Your task to perform on an android device: delete browsing data in the chrome app Image 0: 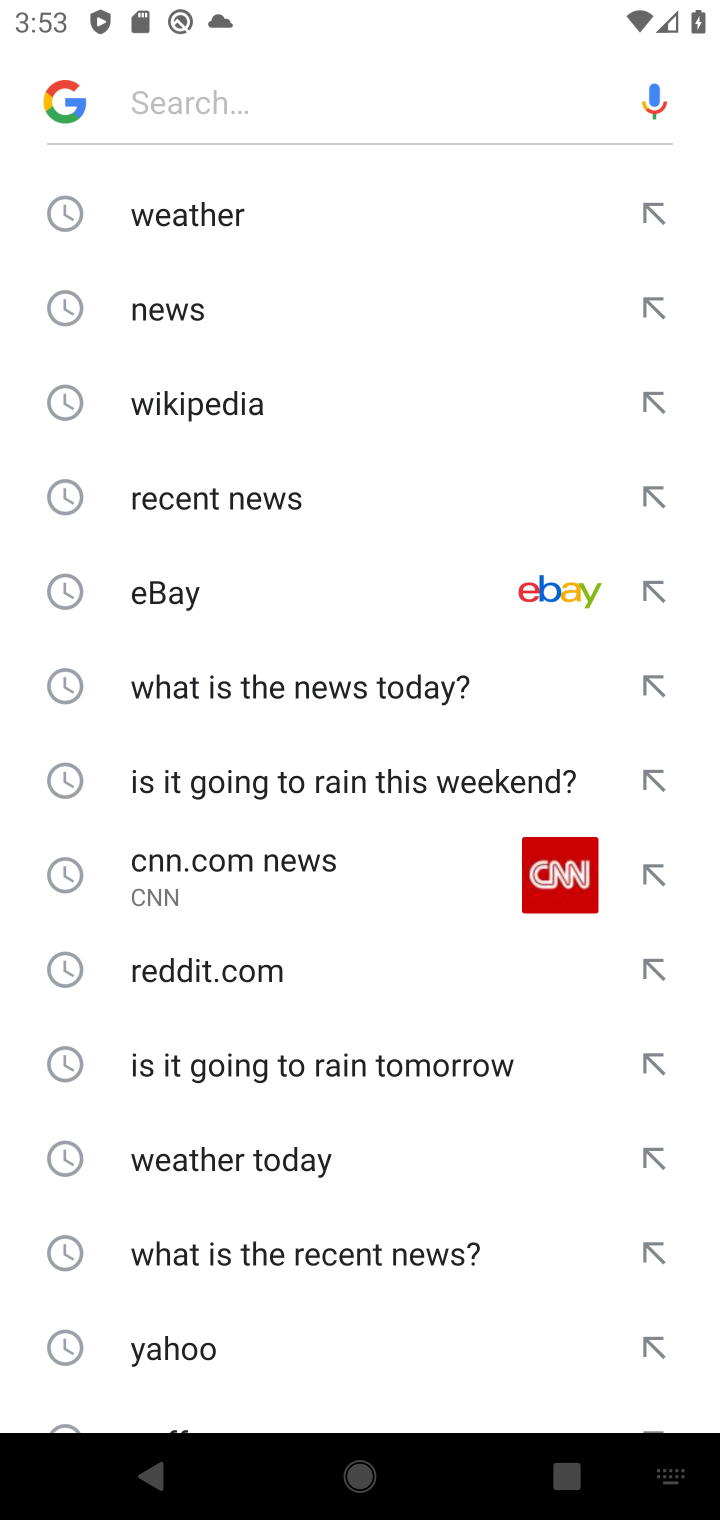
Step 0: press home button
Your task to perform on an android device: delete browsing data in the chrome app Image 1: 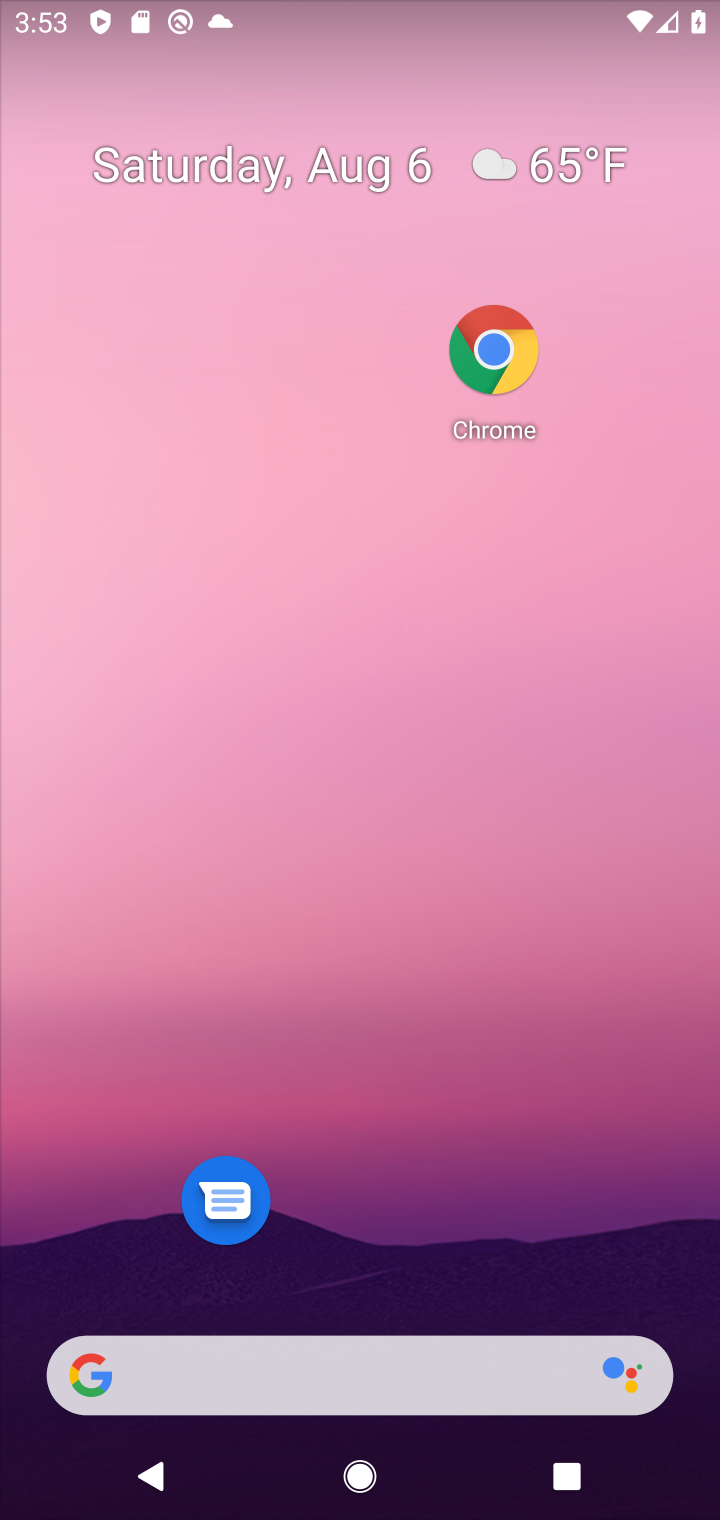
Step 1: click (482, 358)
Your task to perform on an android device: delete browsing data in the chrome app Image 2: 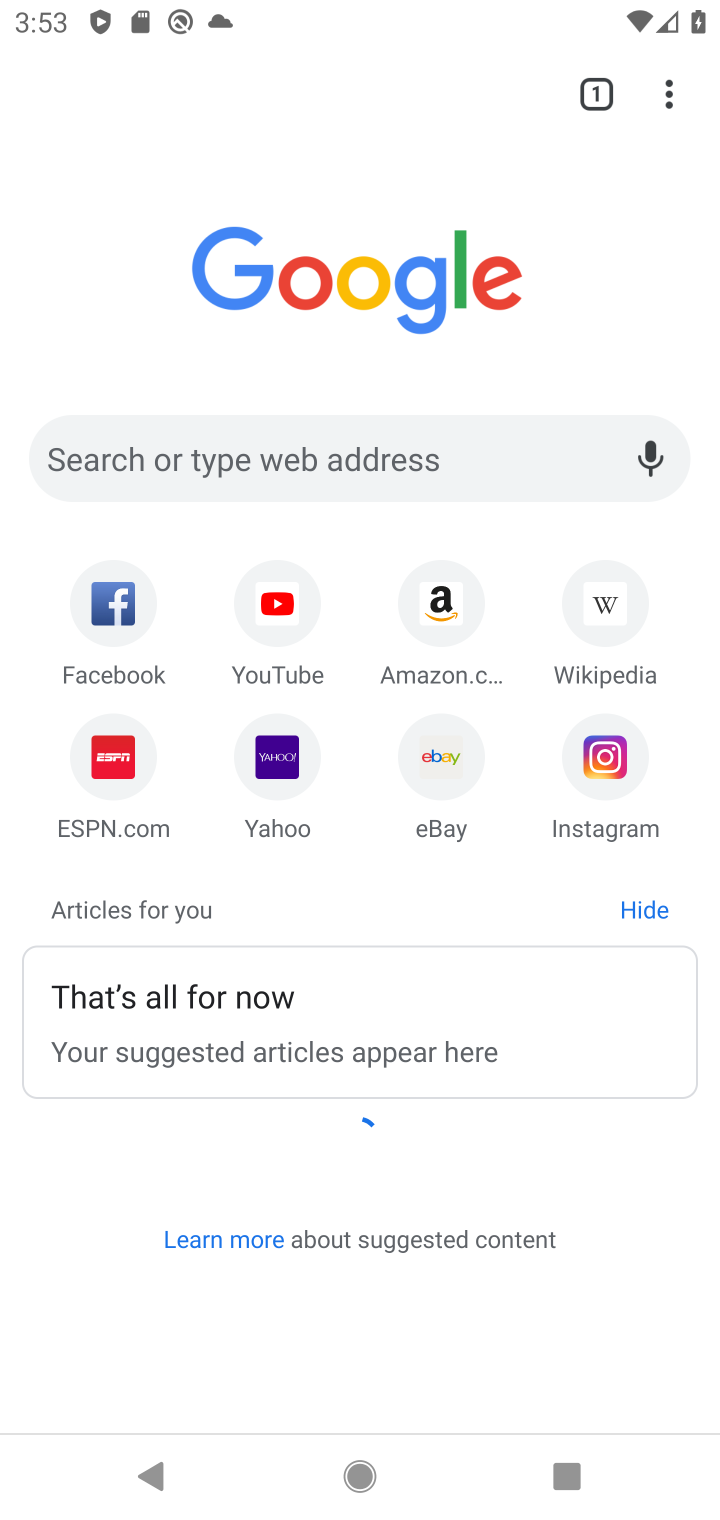
Step 2: click (667, 101)
Your task to perform on an android device: delete browsing data in the chrome app Image 3: 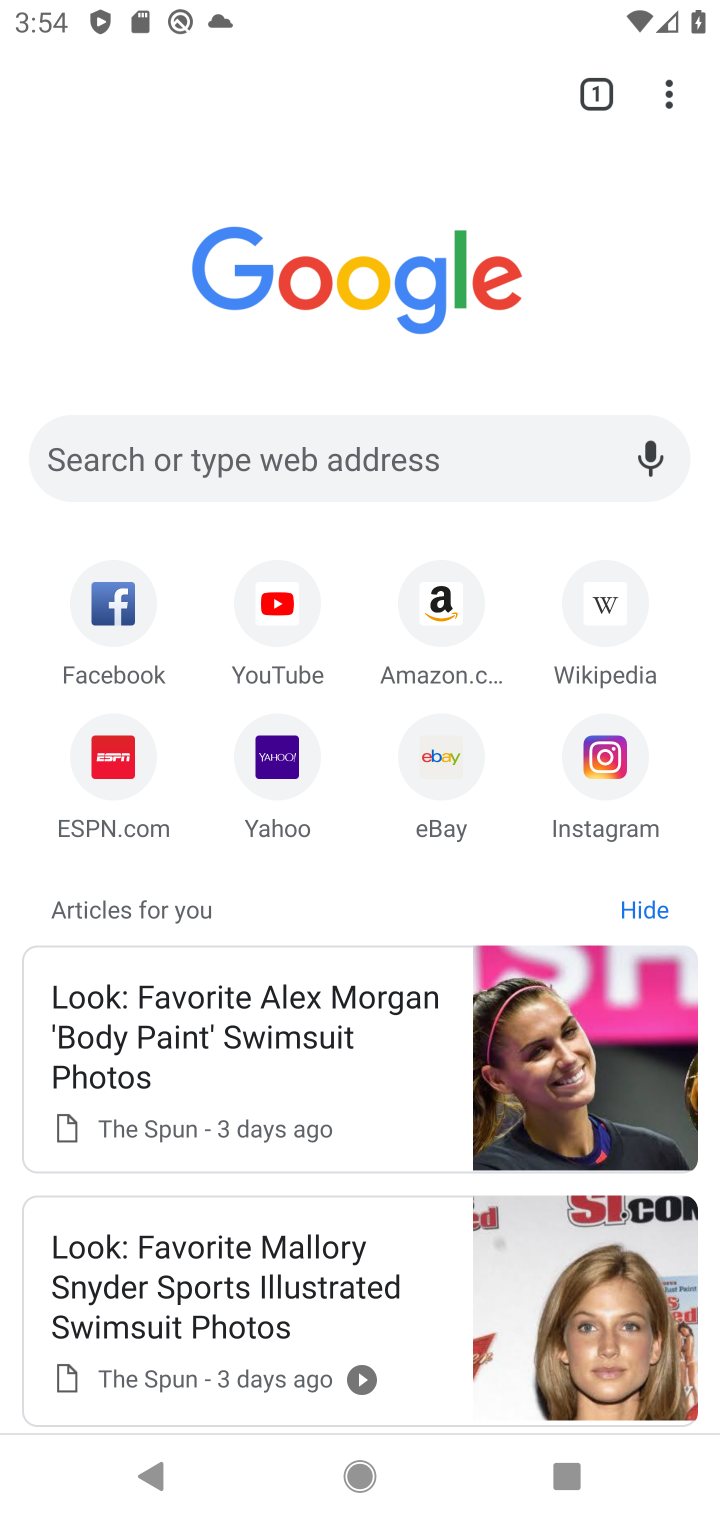
Step 3: click (663, 83)
Your task to perform on an android device: delete browsing data in the chrome app Image 4: 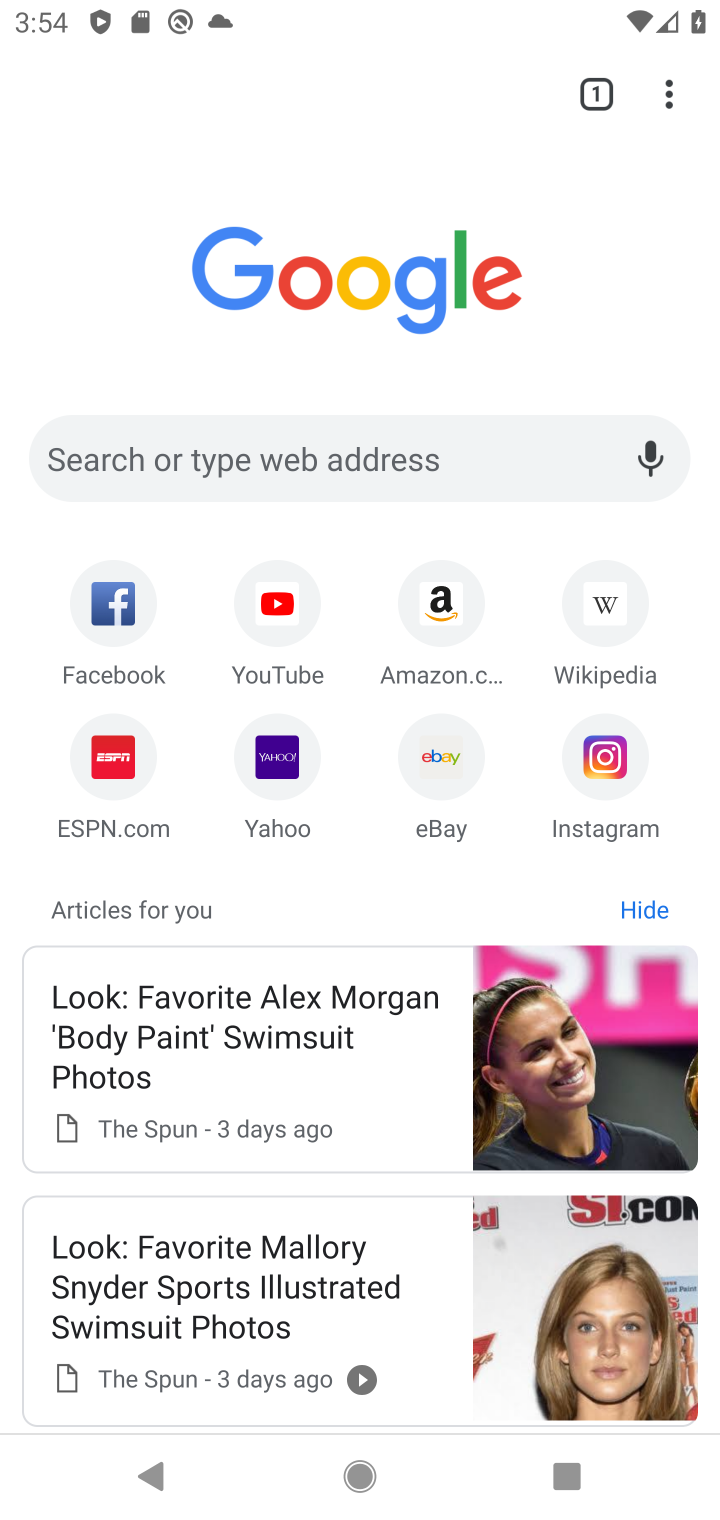
Step 4: click (667, 96)
Your task to perform on an android device: delete browsing data in the chrome app Image 5: 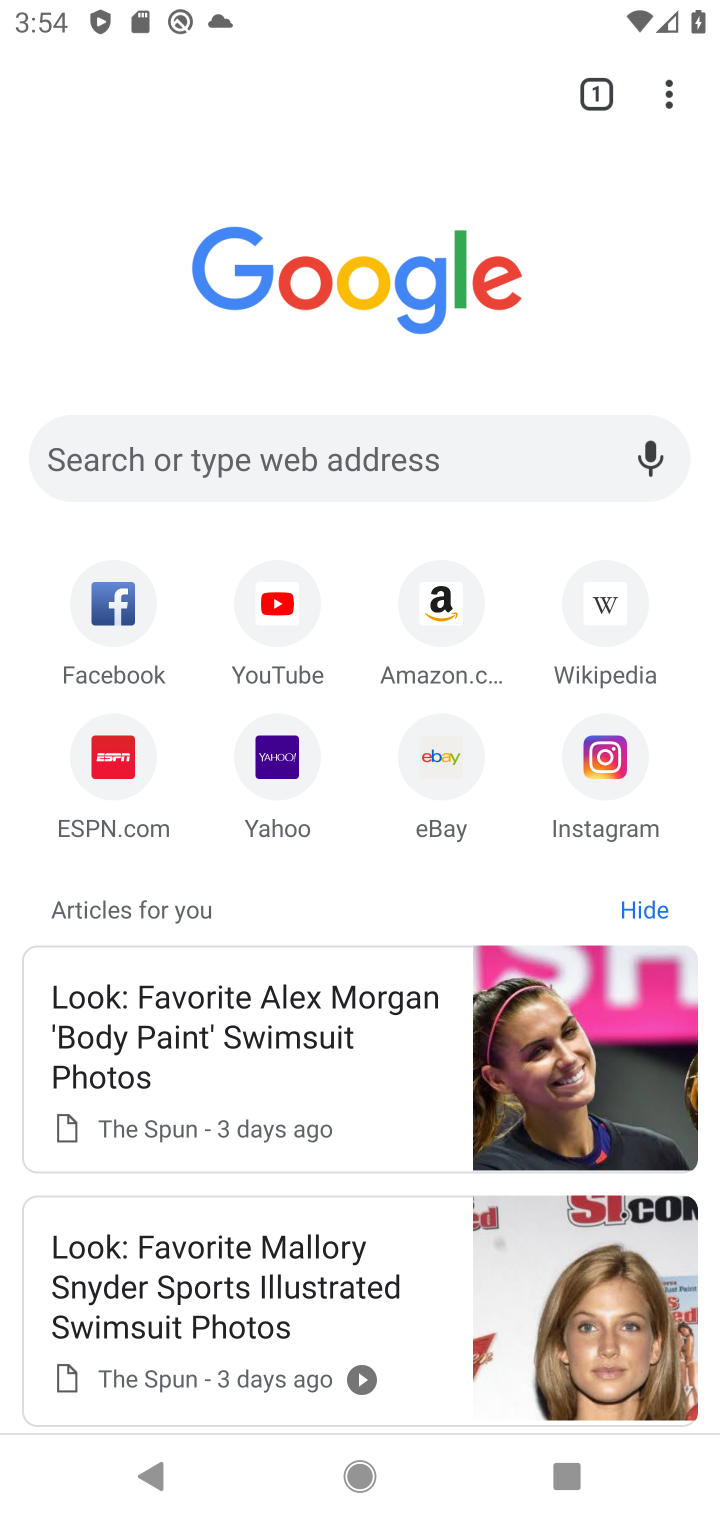
Step 5: click (655, 96)
Your task to perform on an android device: delete browsing data in the chrome app Image 6: 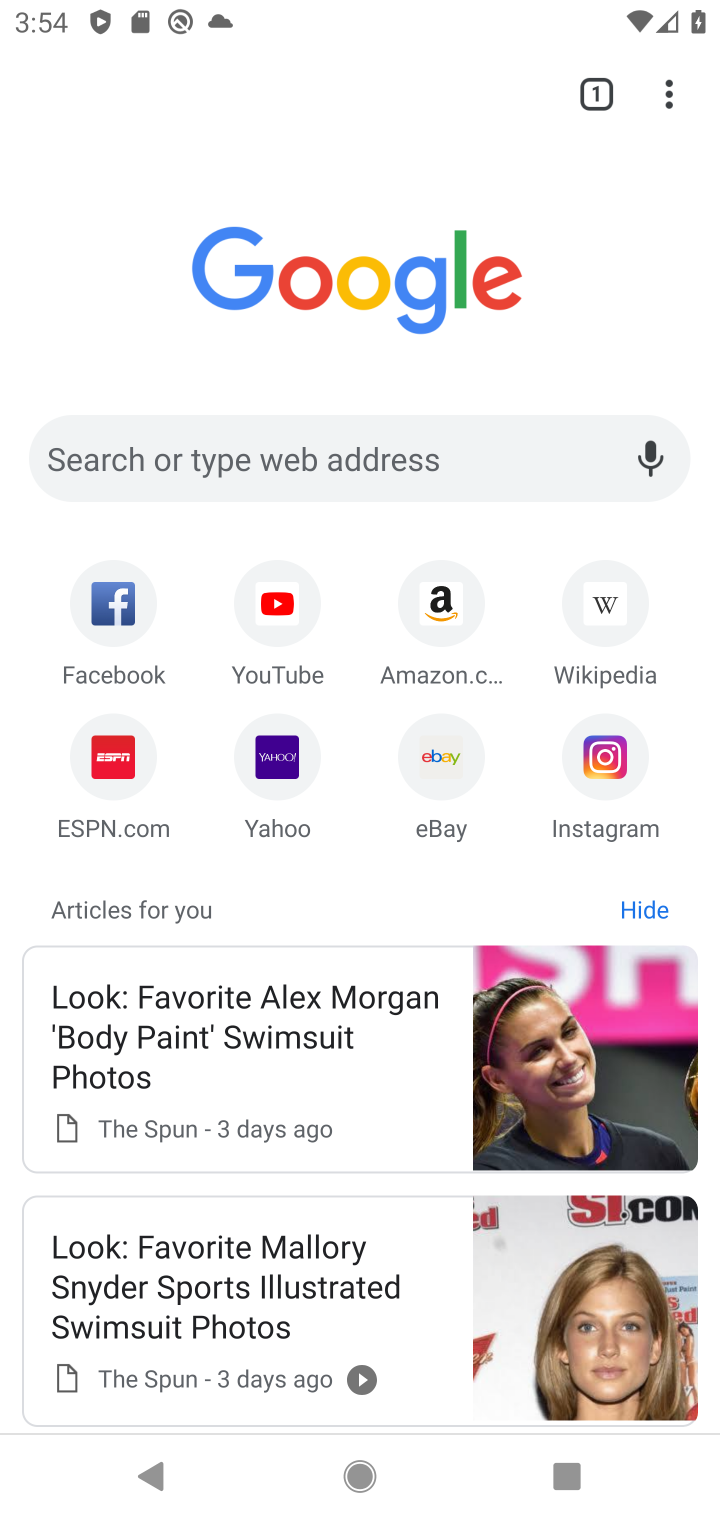
Step 6: click (662, 87)
Your task to perform on an android device: delete browsing data in the chrome app Image 7: 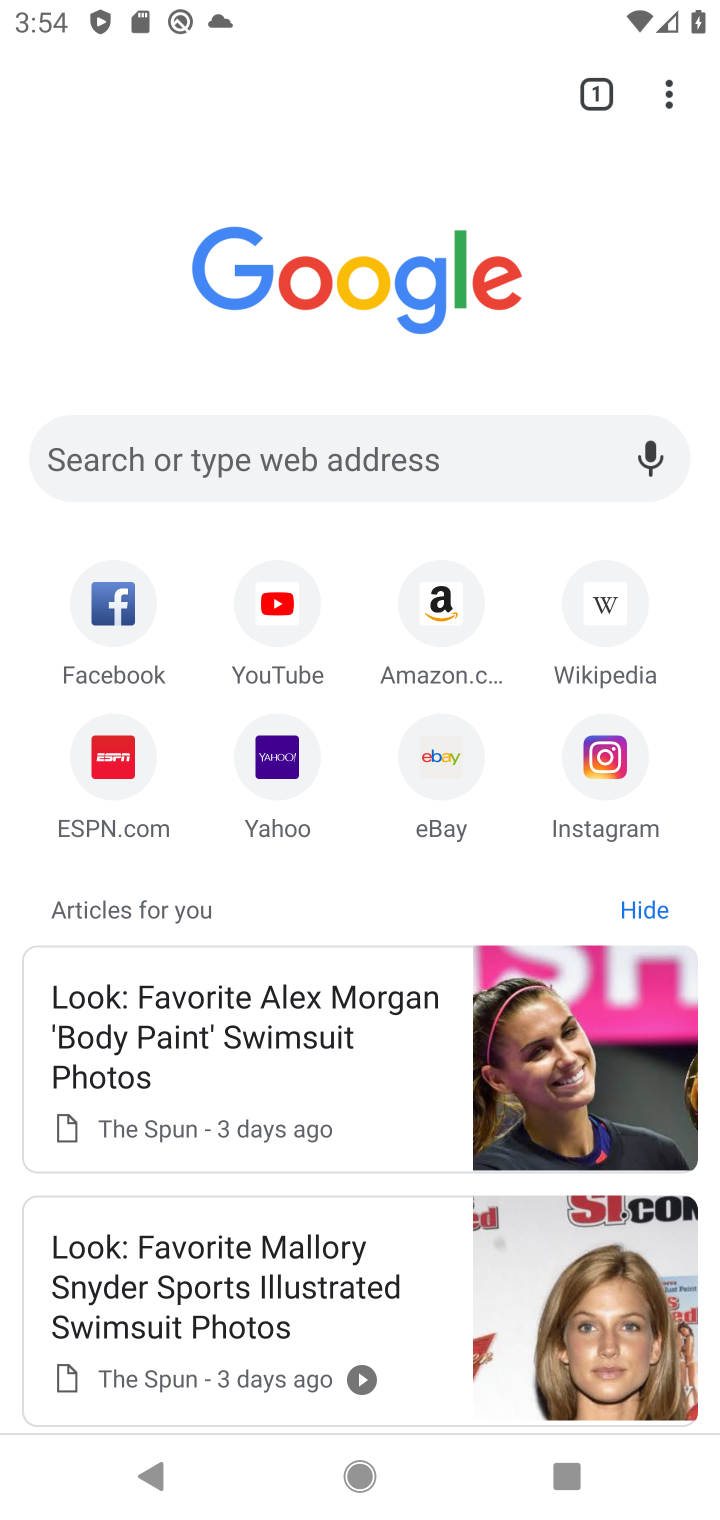
Step 7: click (667, 99)
Your task to perform on an android device: delete browsing data in the chrome app Image 8: 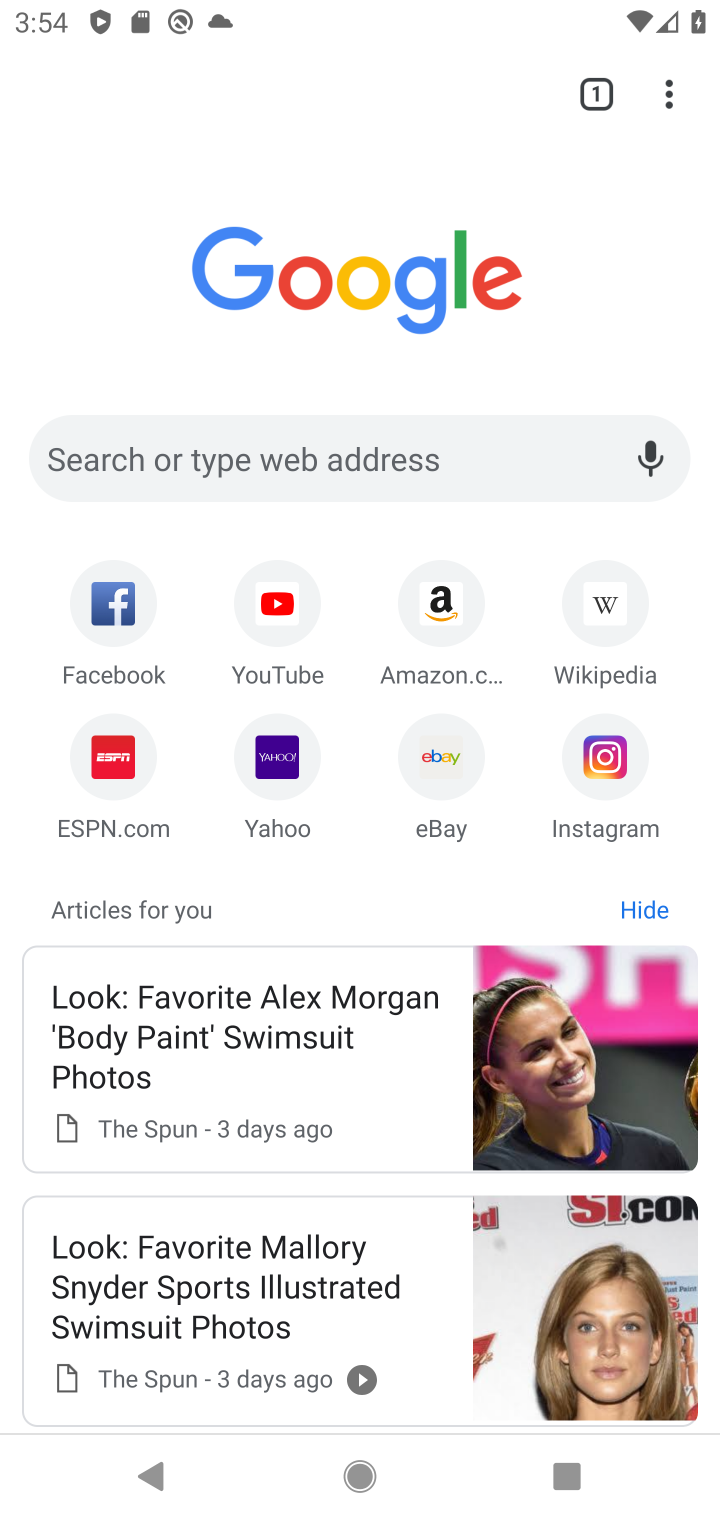
Step 8: click (677, 91)
Your task to perform on an android device: delete browsing data in the chrome app Image 9: 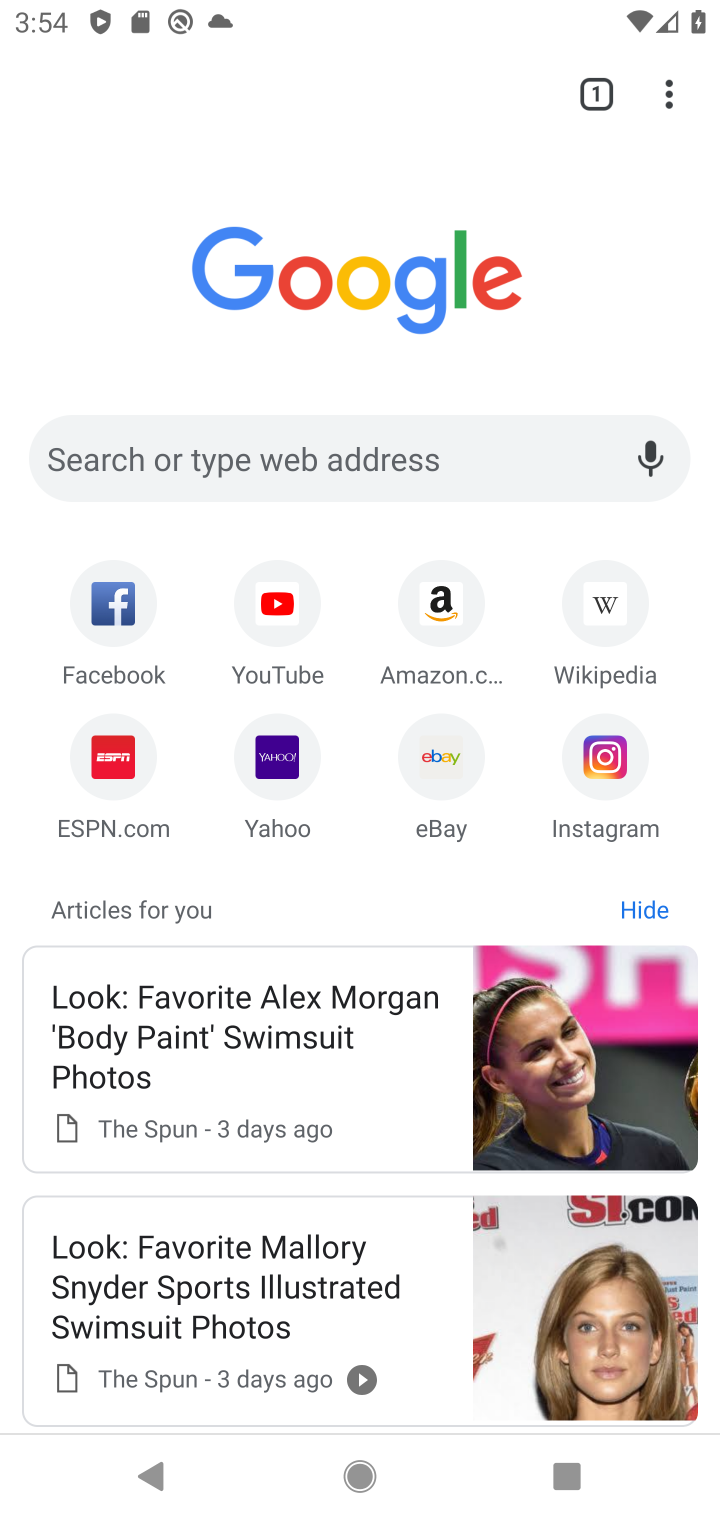
Step 9: click (677, 91)
Your task to perform on an android device: delete browsing data in the chrome app Image 10: 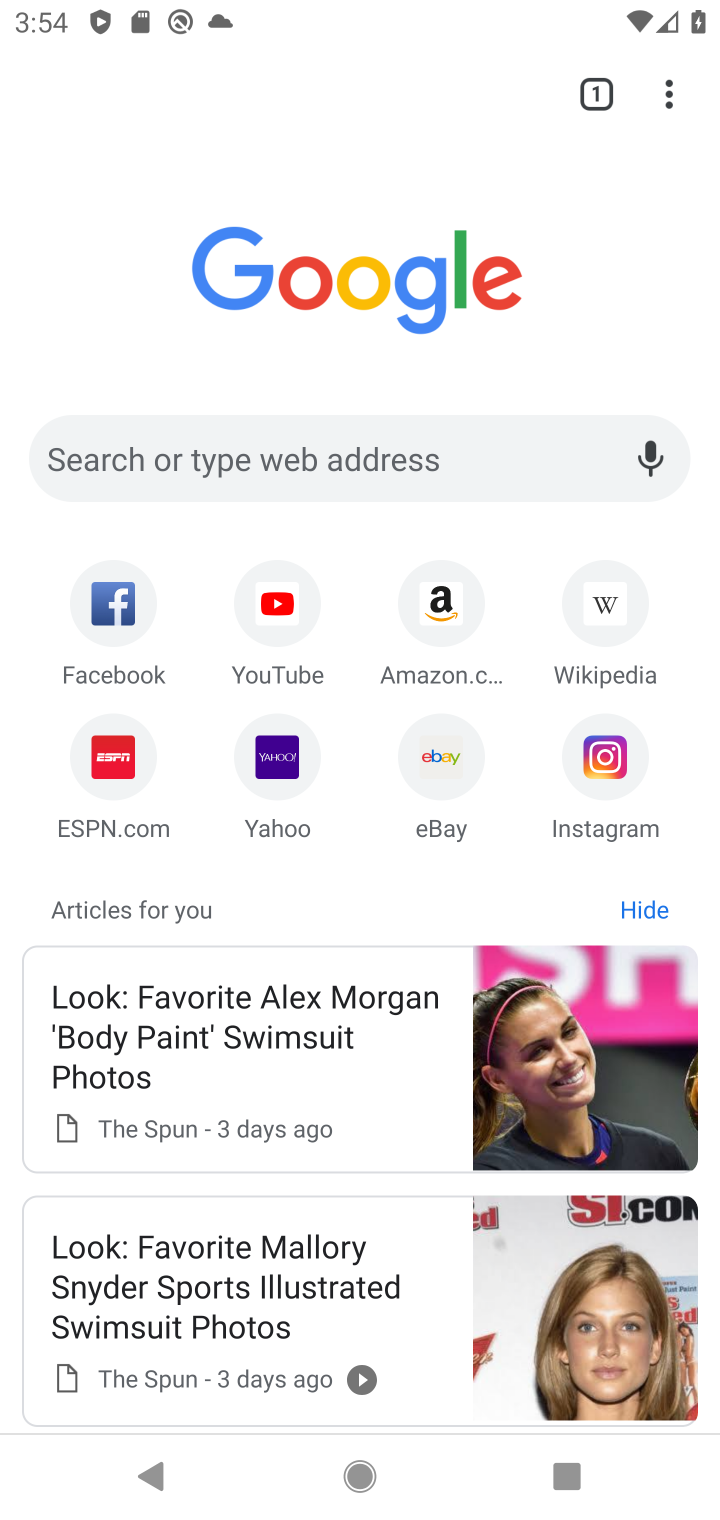
Step 10: click (665, 92)
Your task to perform on an android device: delete browsing data in the chrome app Image 11: 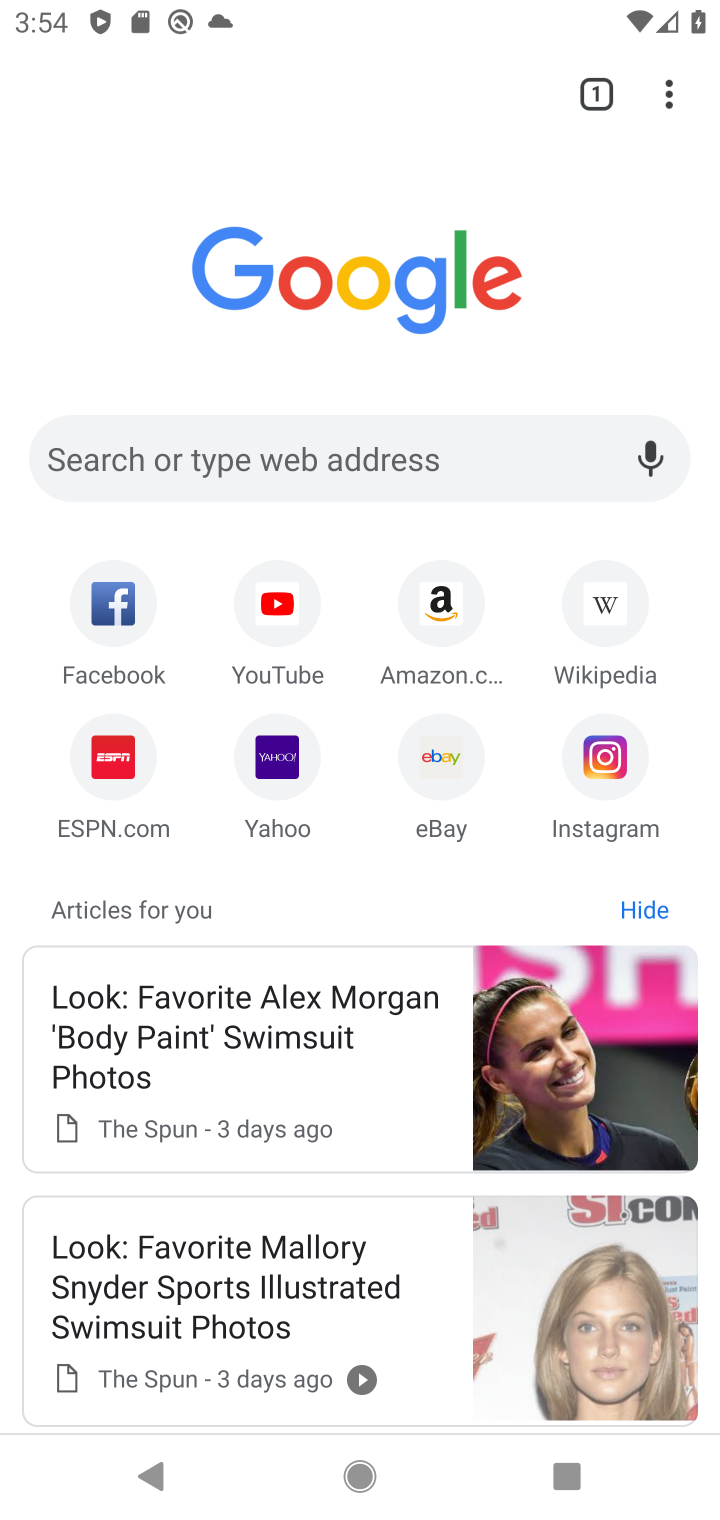
Step 11: click (679, 93)
Your task to perform on an android device: delete browsing data in the chrome app Image 12: 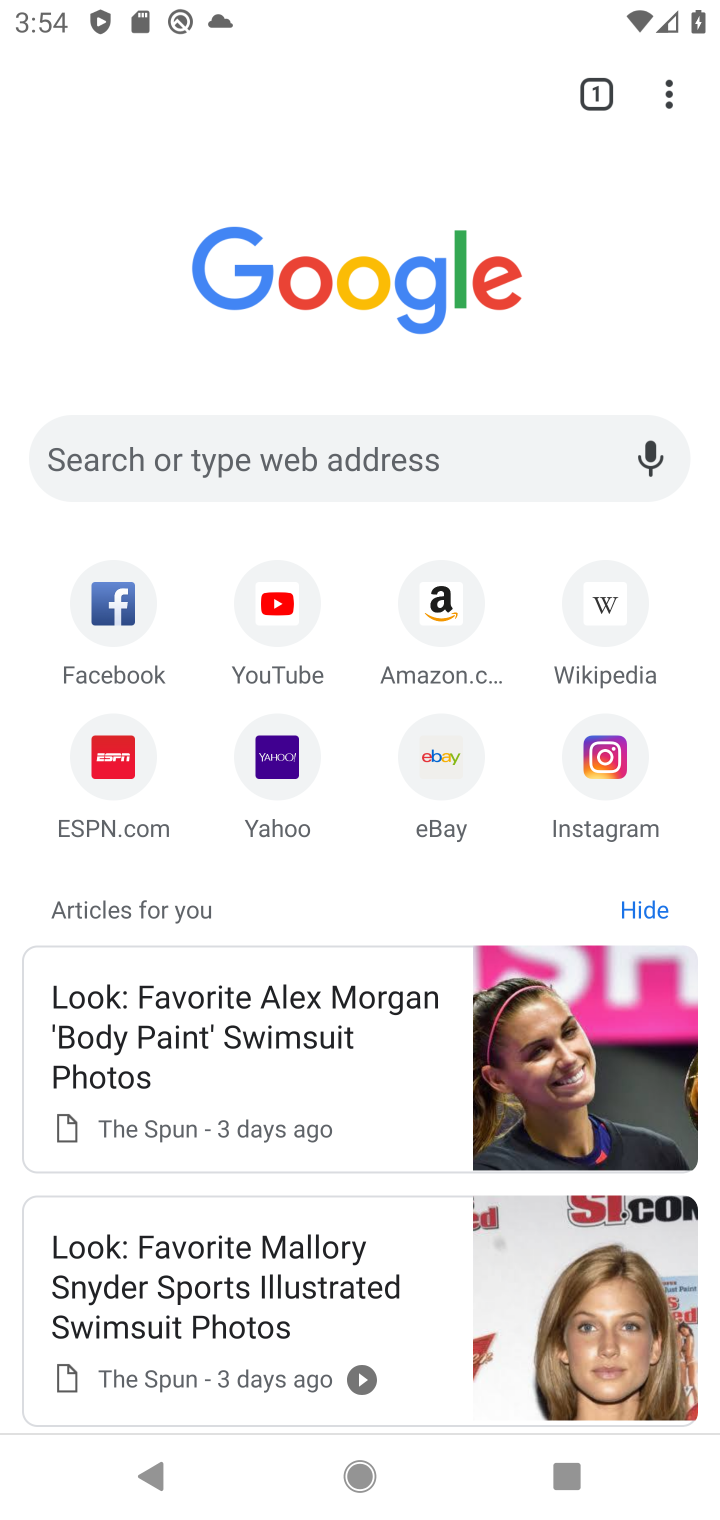
Step 12: click (666, 83)
Your task to perform on an android device: delete browsing data in the chrome app Image 13: 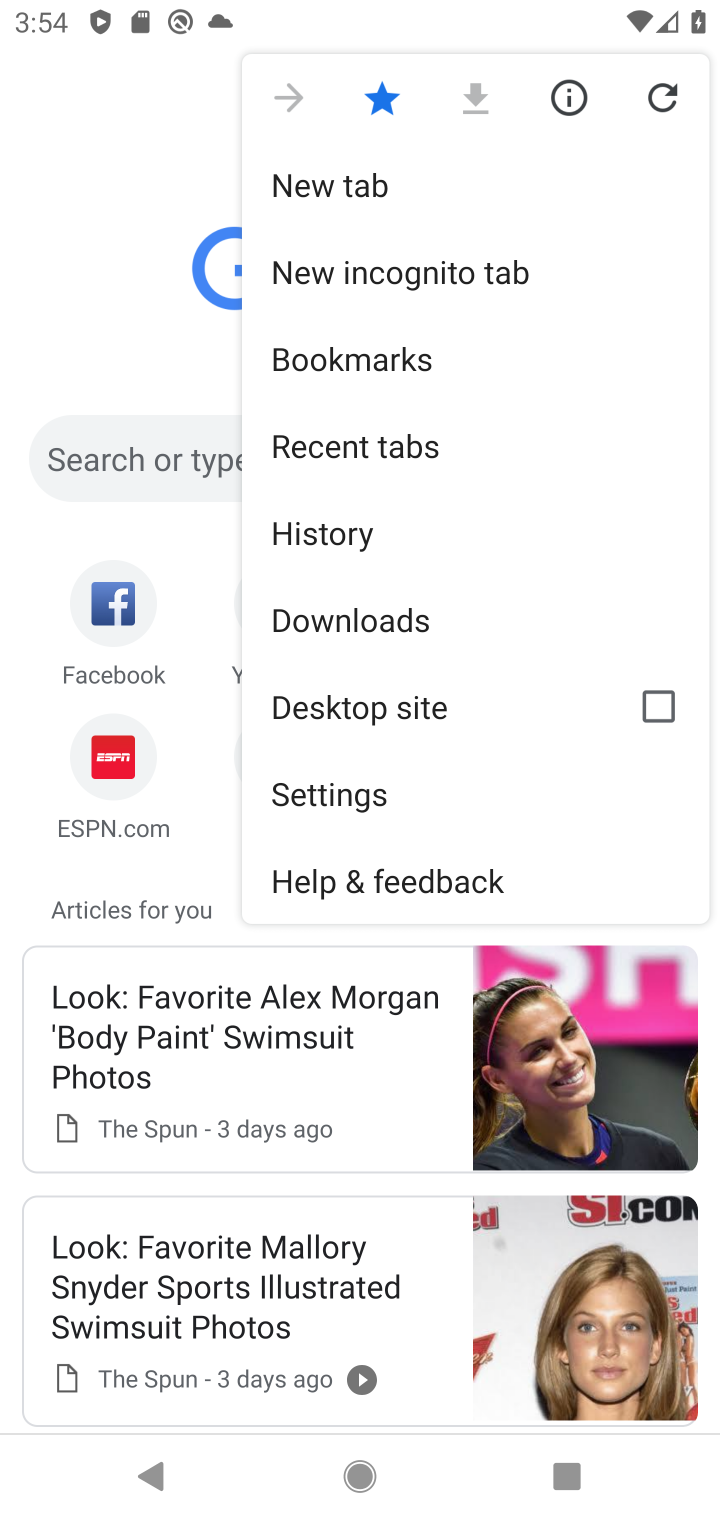
Step 13: click (364, 785)
Your task to perform on an android device: delete browsing data in the chrome app Image 14: 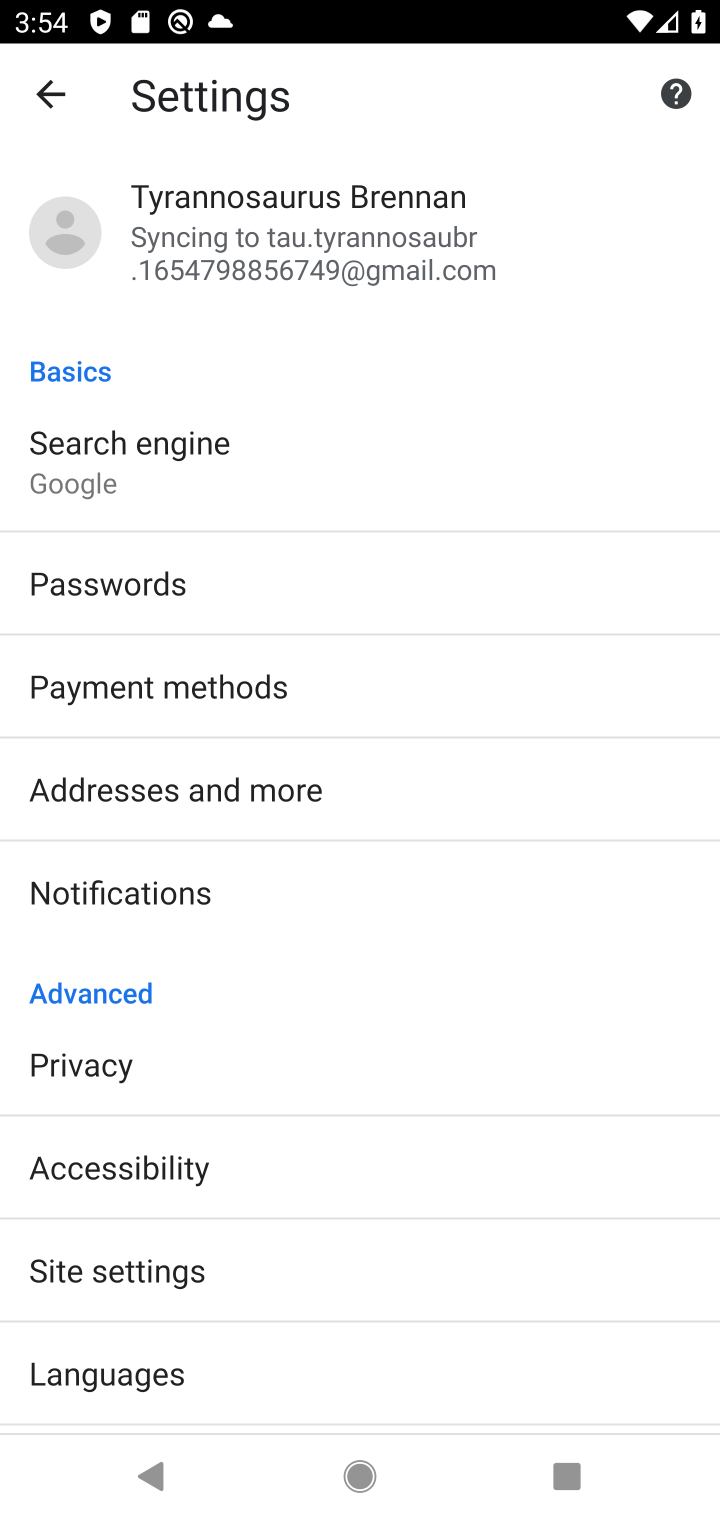
Step 14: click (123, 1032)
Your task to perform on an android device: delete browsing data in the chrome app Image 15: 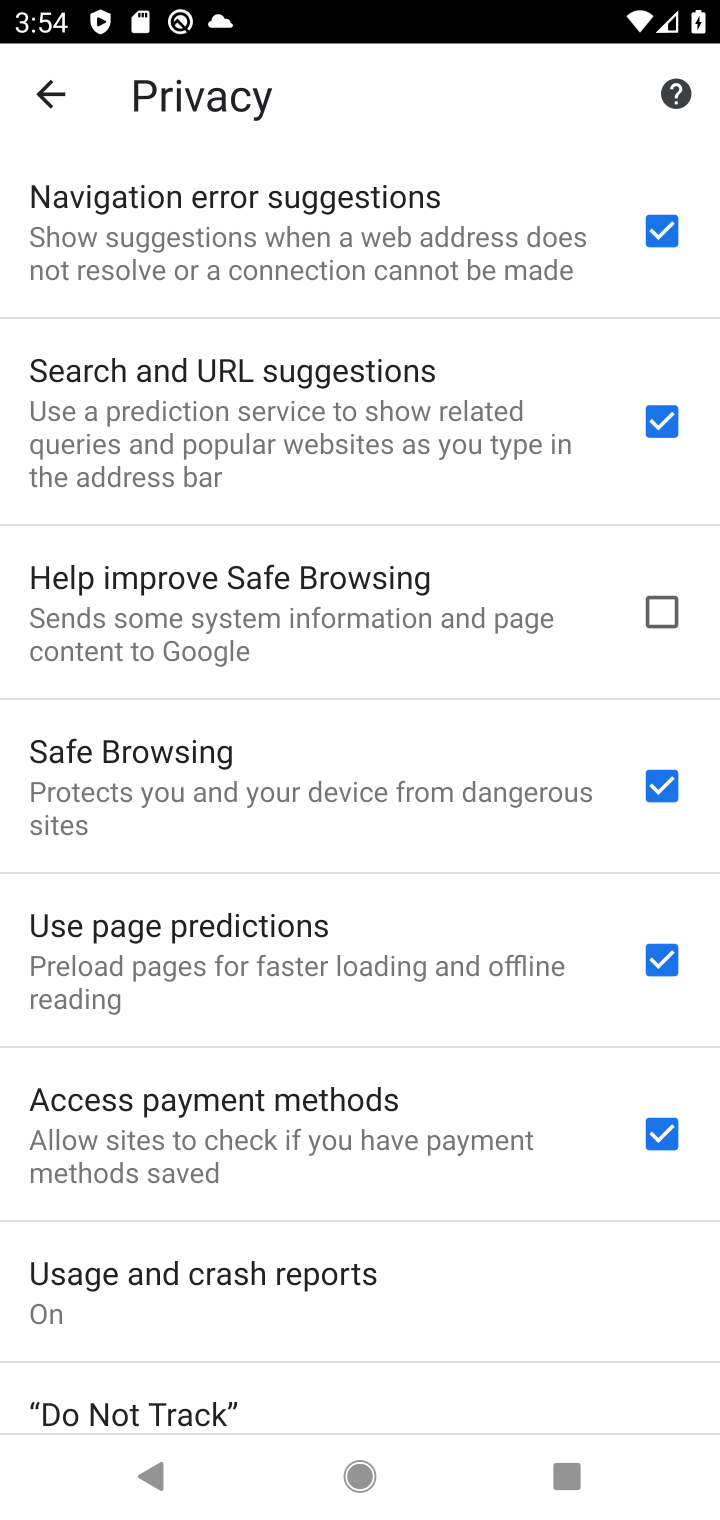
Step 15: drag from (186, 1396) to (186, 697)
Your task to perform on an android device: delete browsing data in the chrome app Image 16: 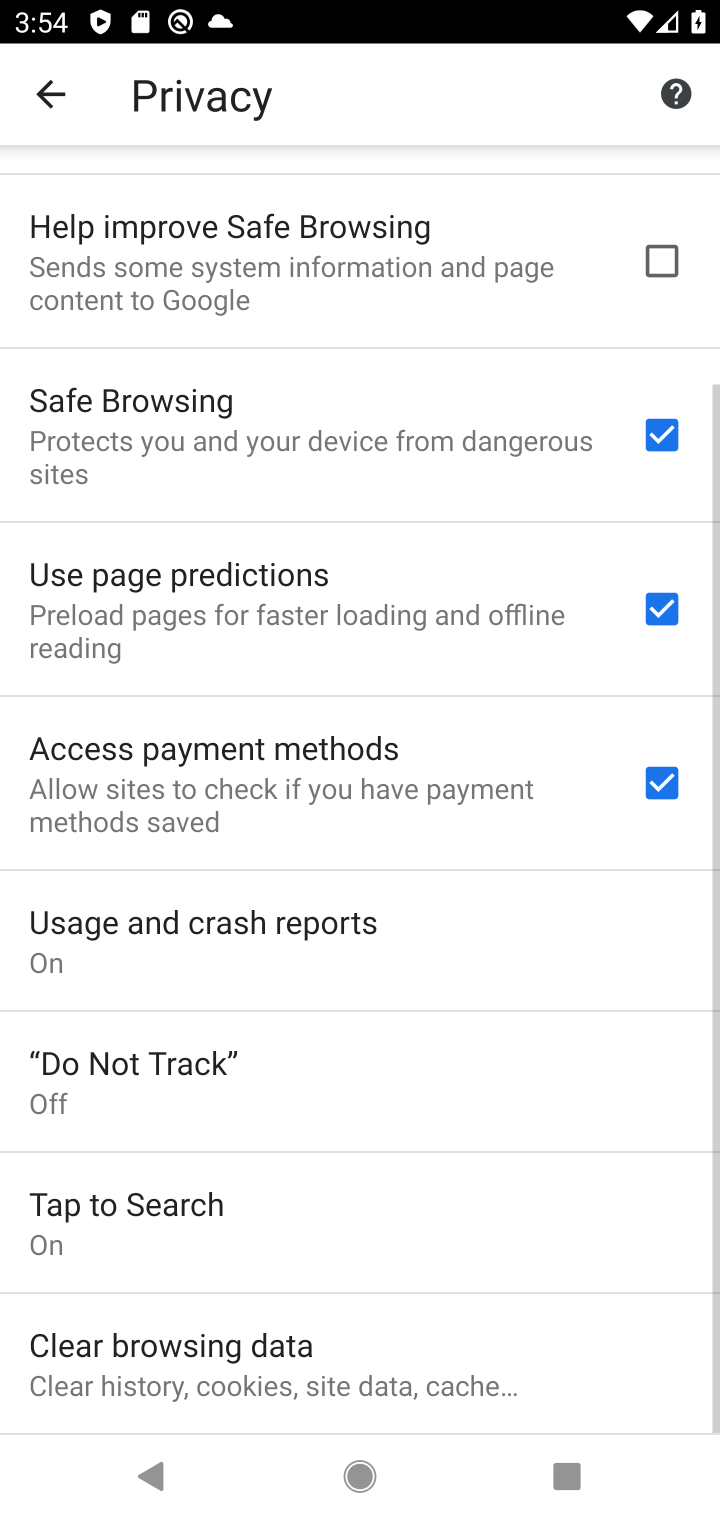
Step 16: click (187, 1367)
Your task to perform on an android device: delete browsing data in the chrome app Image 17: 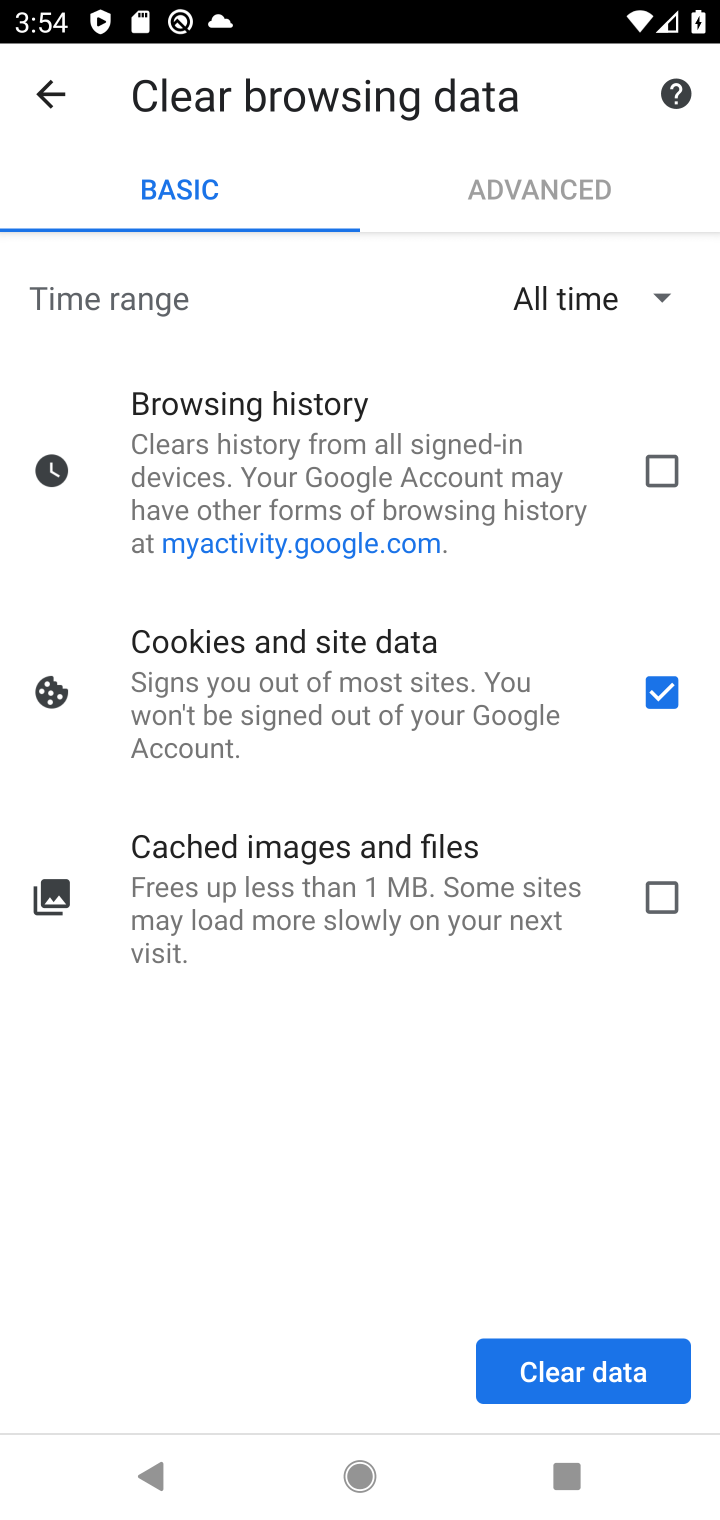
Step 17: click (674, 906)
Your task to perform on an android device: delete browsing data in the chrome app Image 18: 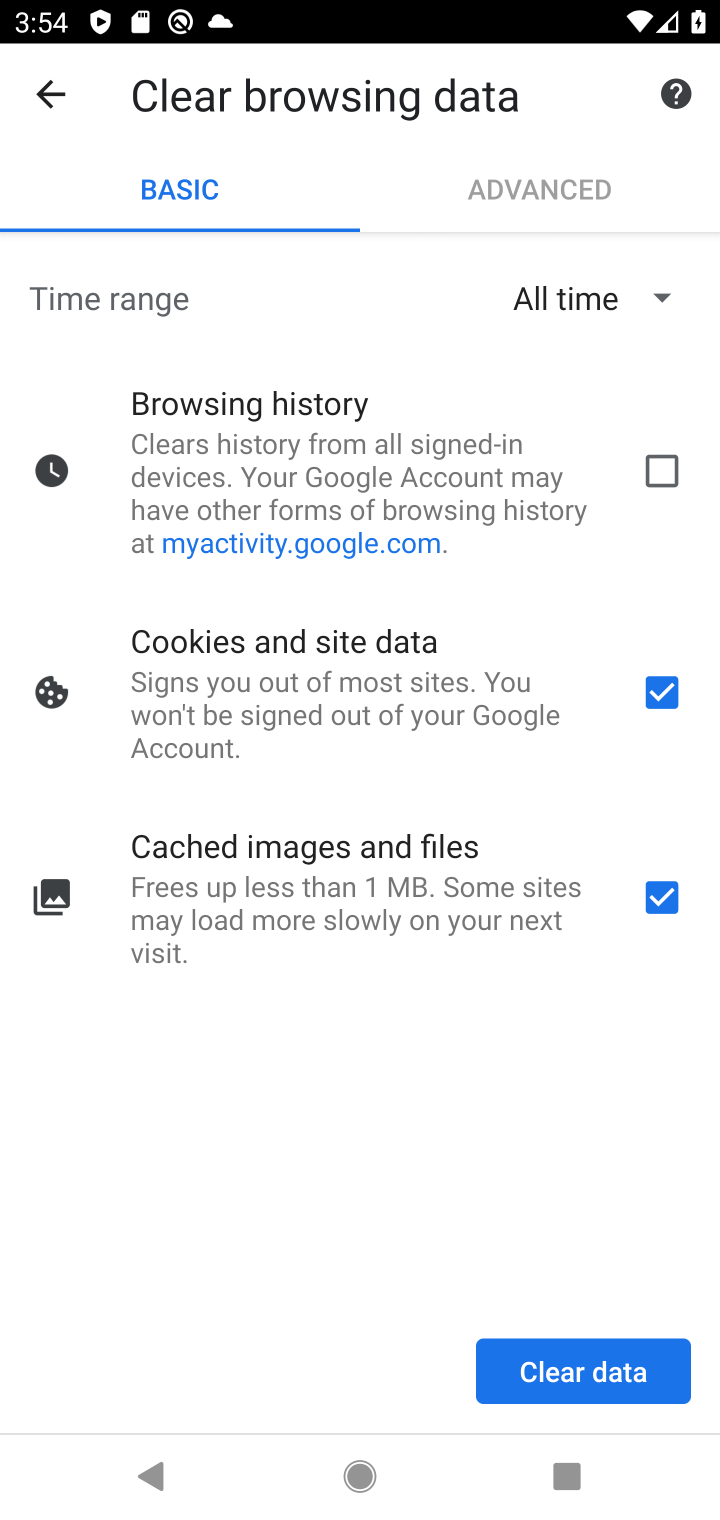
Step 18: click (661, 458)
Your task to perform on an android device: delete browsing data in the chrome app Image 19: 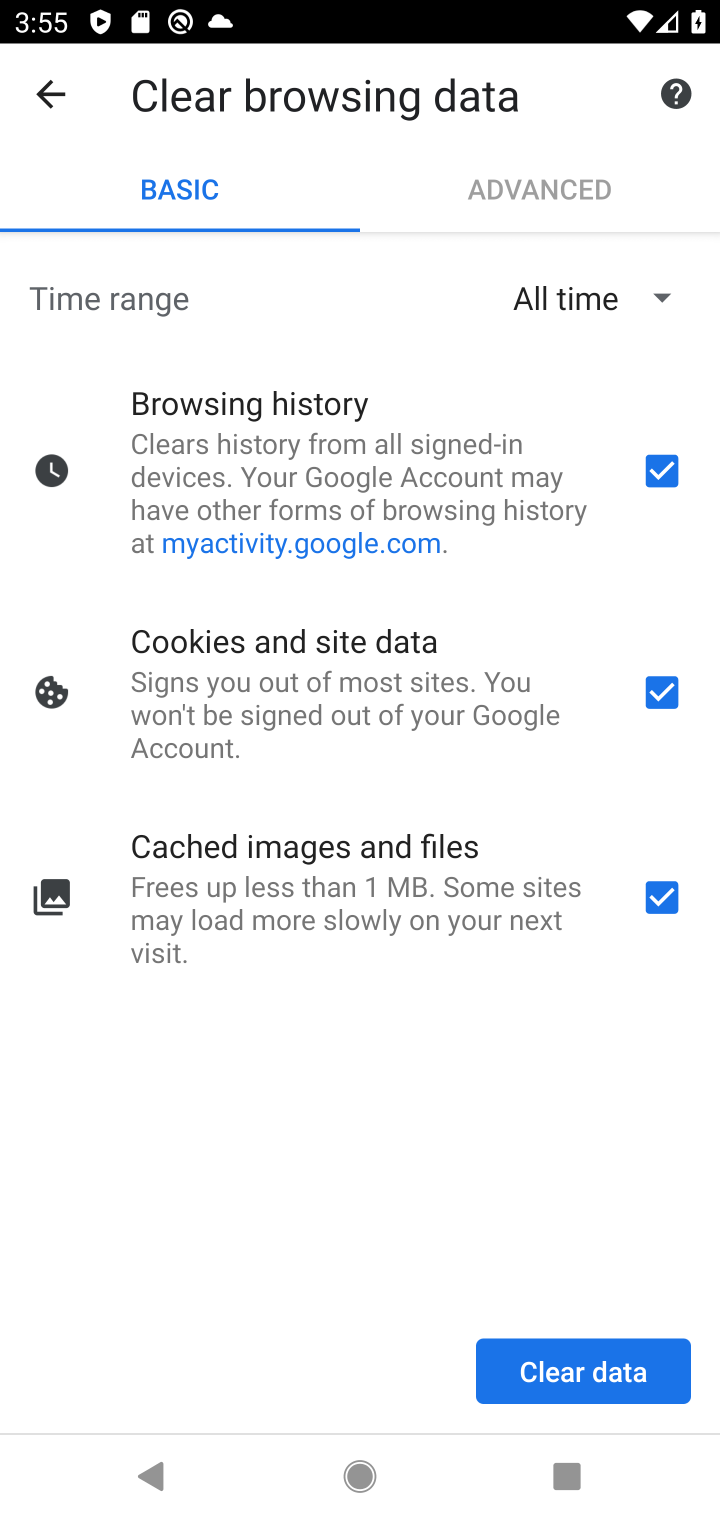
Step 19: click (597, 1368)
Your task to perform on an android device: delete browsing data in the chrome app Image 20: 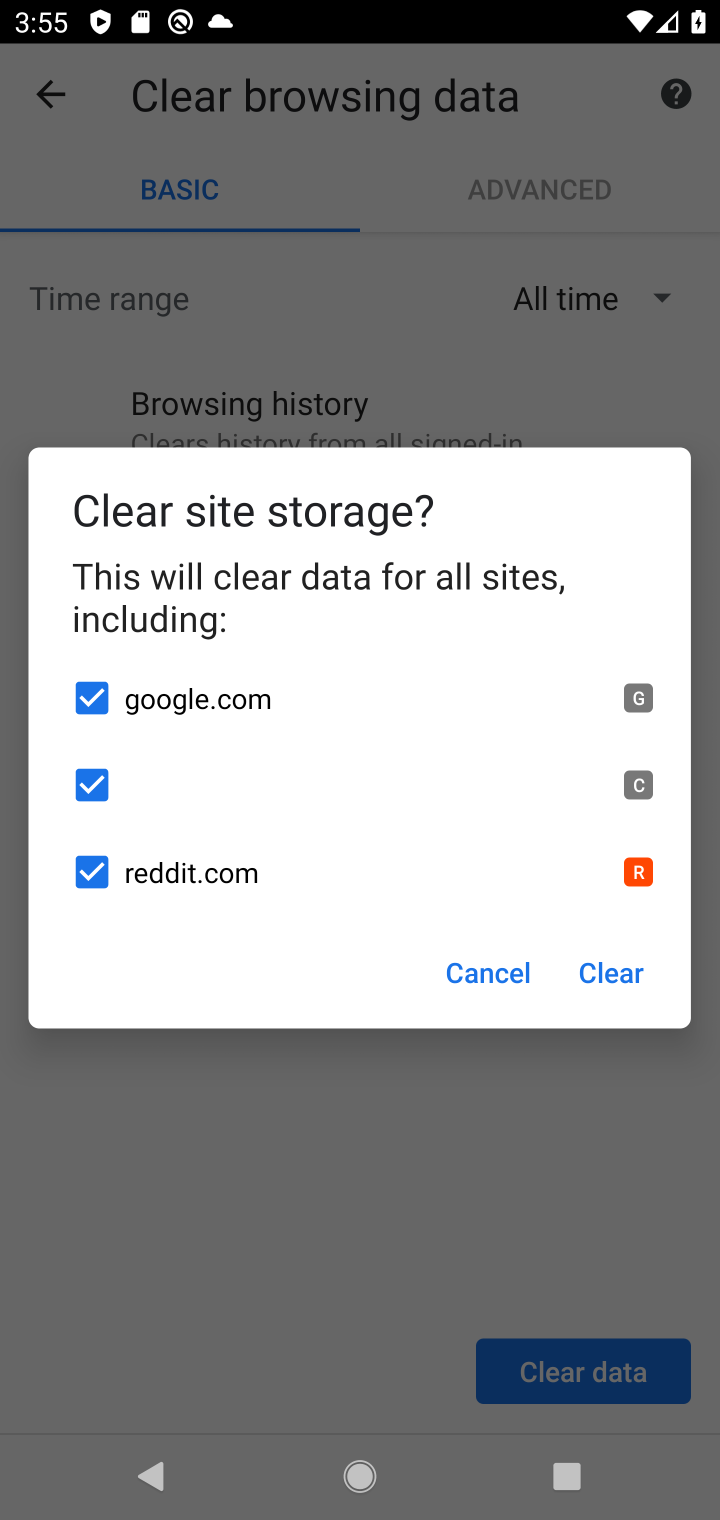
Step 20: click (617, 966)
Your task to perform on an android device: delete browsing data in the chrome app Image 21: 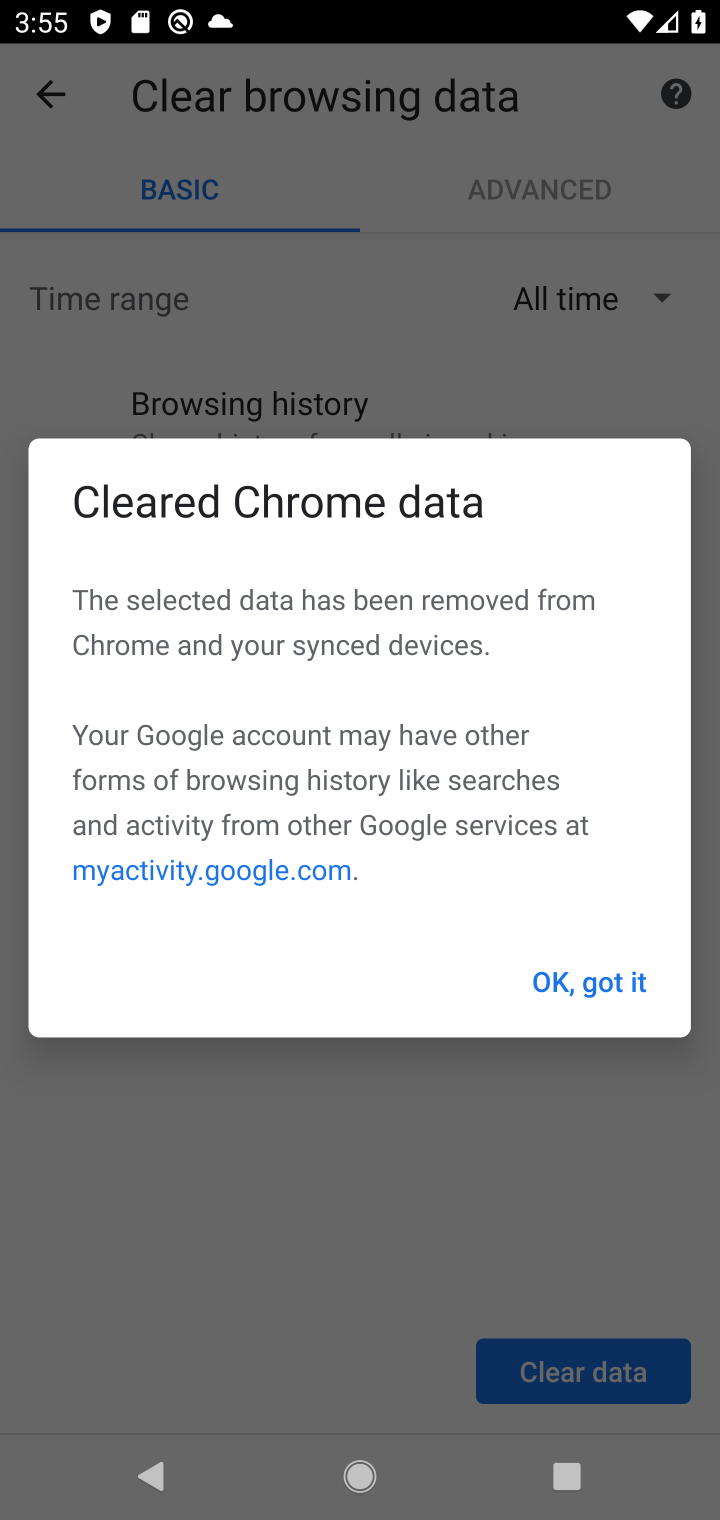
Step 21: click (640, 983)
Your task to perform on an android device: delete browsing data in the chrome app Image 22: 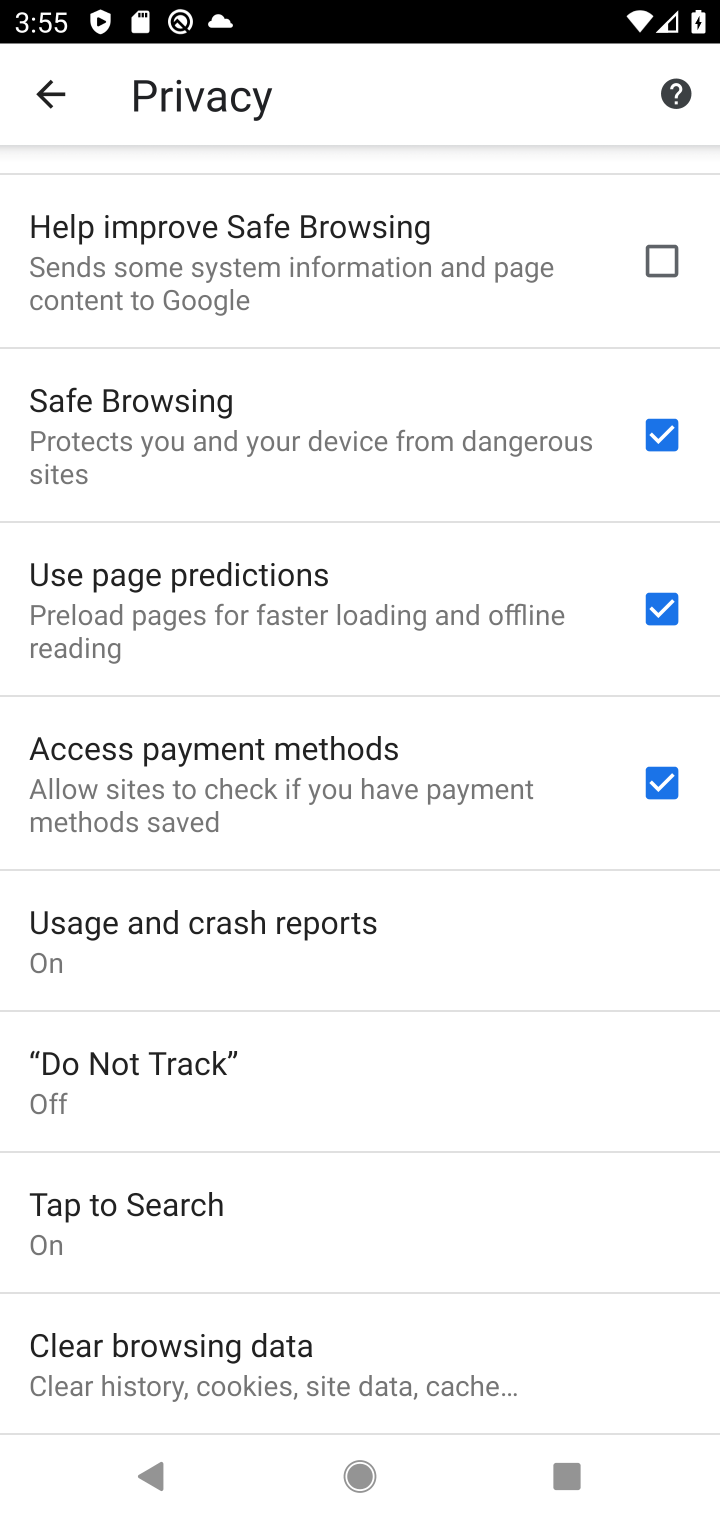
Step 22: task complete